Your task to perform on an android device: all mails in gmail Image 0: 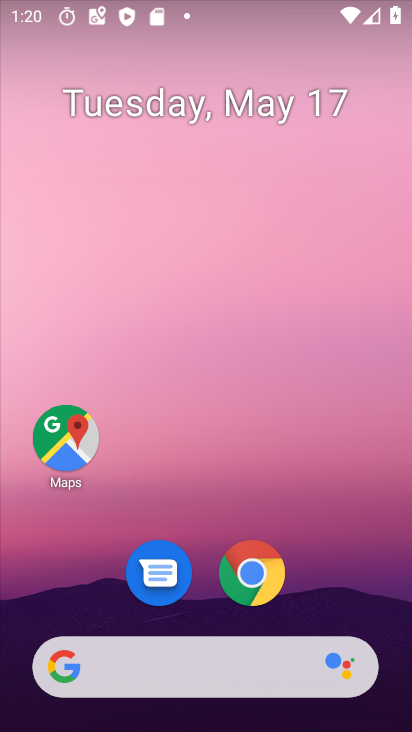
Step 0: drag from (261, 713) to (254, 29)
Your task to perform on an android device: all mails in gmail Image 1: 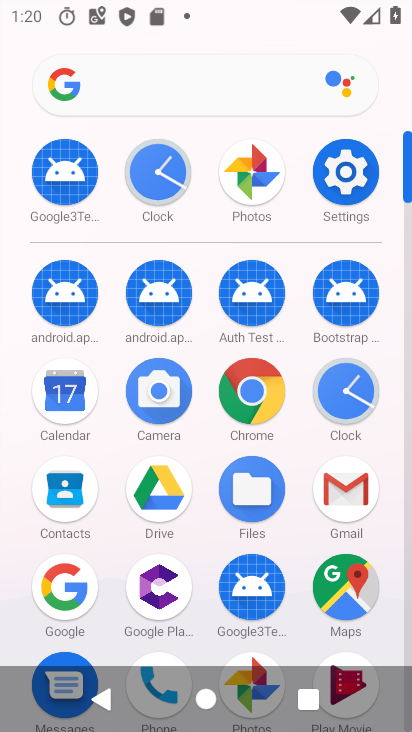
Step 1: click (351, 504)
Your task to perform on an android device: all mails in gmail Image 2: 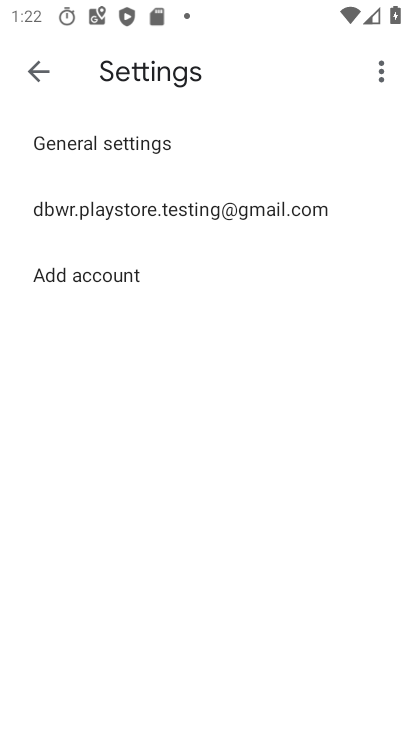
Step 2: click (34, 66)
Your task to perform on an android device: all mails in gmail Image 3: 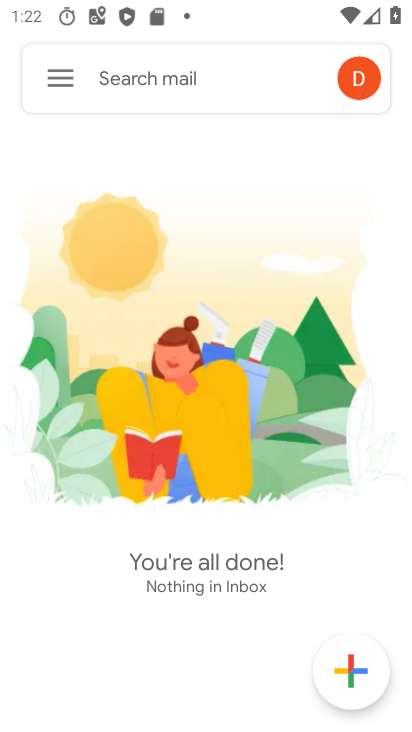
Step 3: click (63, 83)
Your task to perform on an android device: all mails in gmail Image 4: 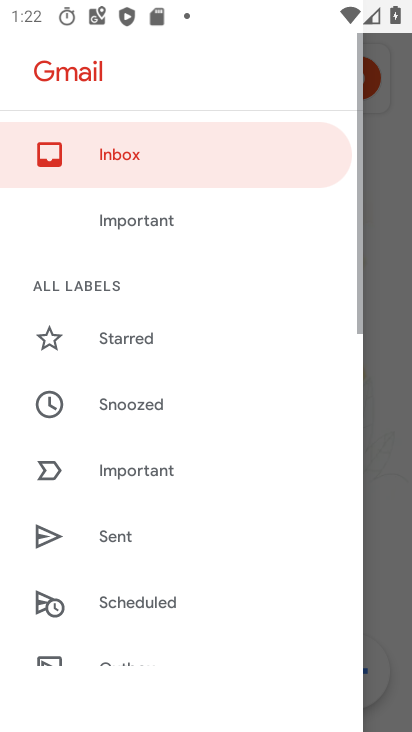
Step 4: drag from (161, 615) to (265, 10)
Your task to perform on an android device: all mails in gmail Image 5: 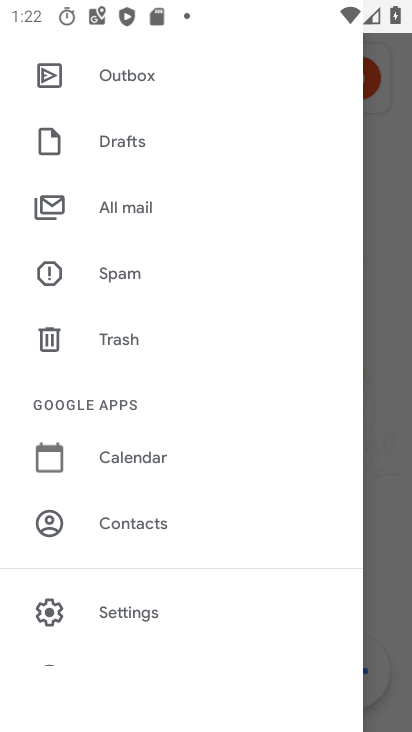
Step 5: drag from (213, 612) to (263, 218)
Your task to perform on an android device: all mails in gmail Image 6: 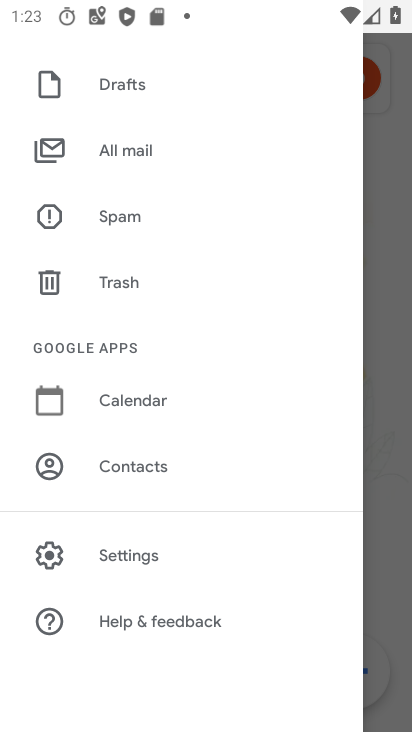
Step 6: click (192, 147)
Your task to perform on an android device: all mails in gmail Image 7: 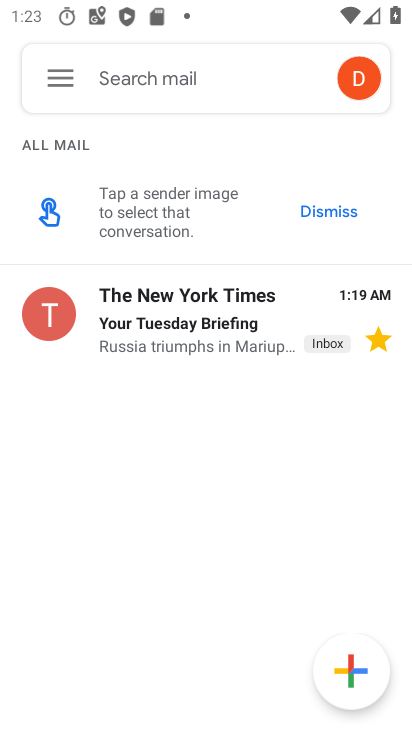
Step 7: task complete